Your task to perform on an android device: Clear the cart on bestbuy.com. Add usb-b to the cart on bestbuy.com Image 0: 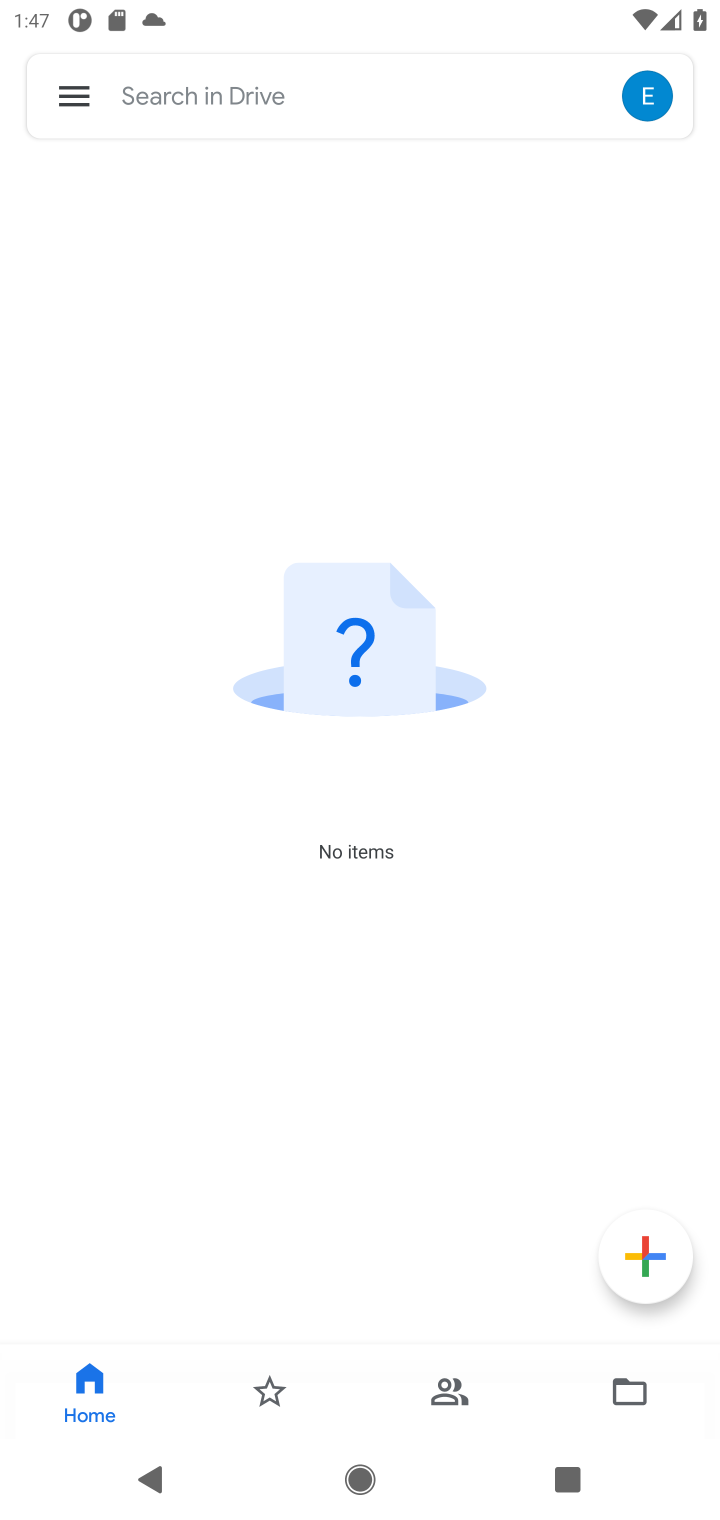
Step 0: press home button
Your task to perform on an android device: Clear the cart on bestbuy.com. Add usb-b to the cart on bestbuy.com Image 1: 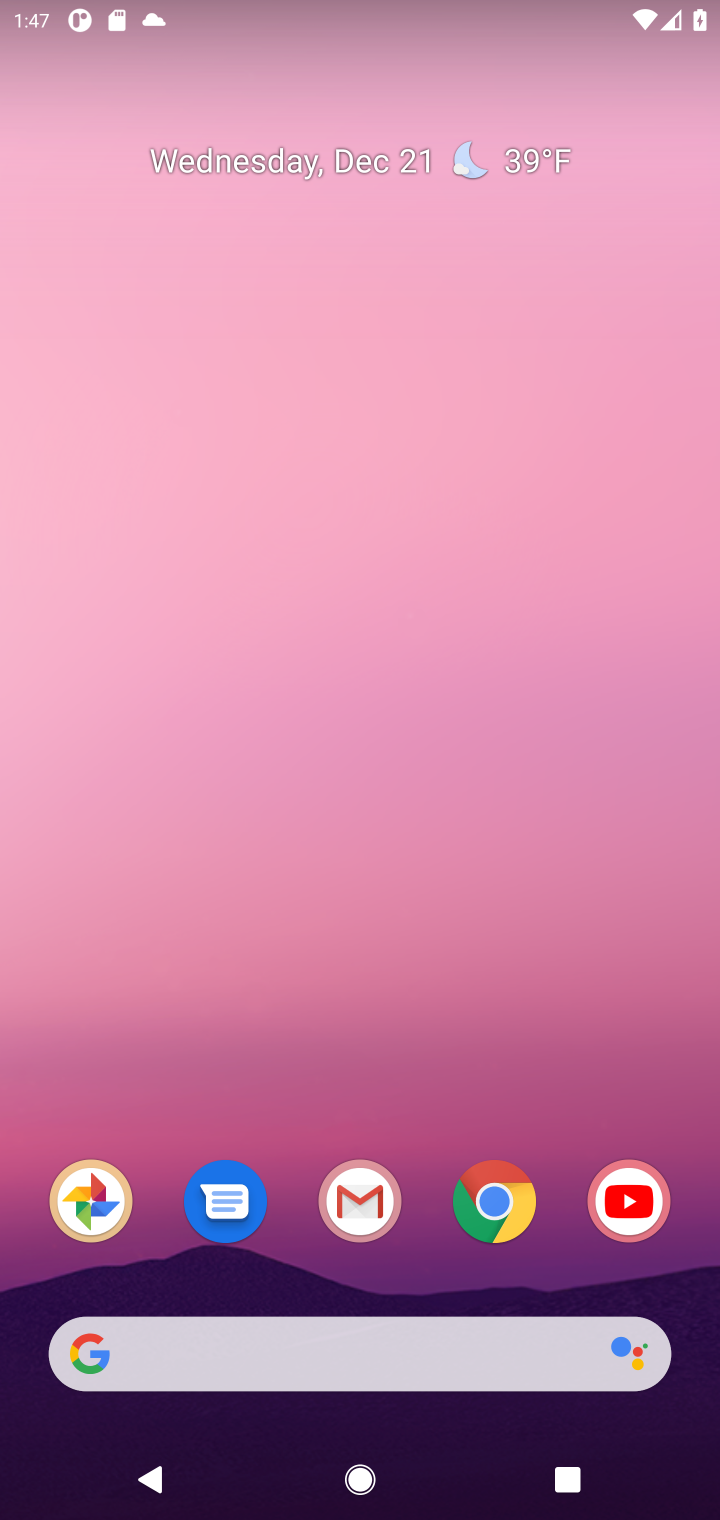
Step 1: click (479, 1211)
Your task to perform on an android device: Clear the cart on bestbuy.com. Add usb-b to the cart on bestbuy.com Image 2: 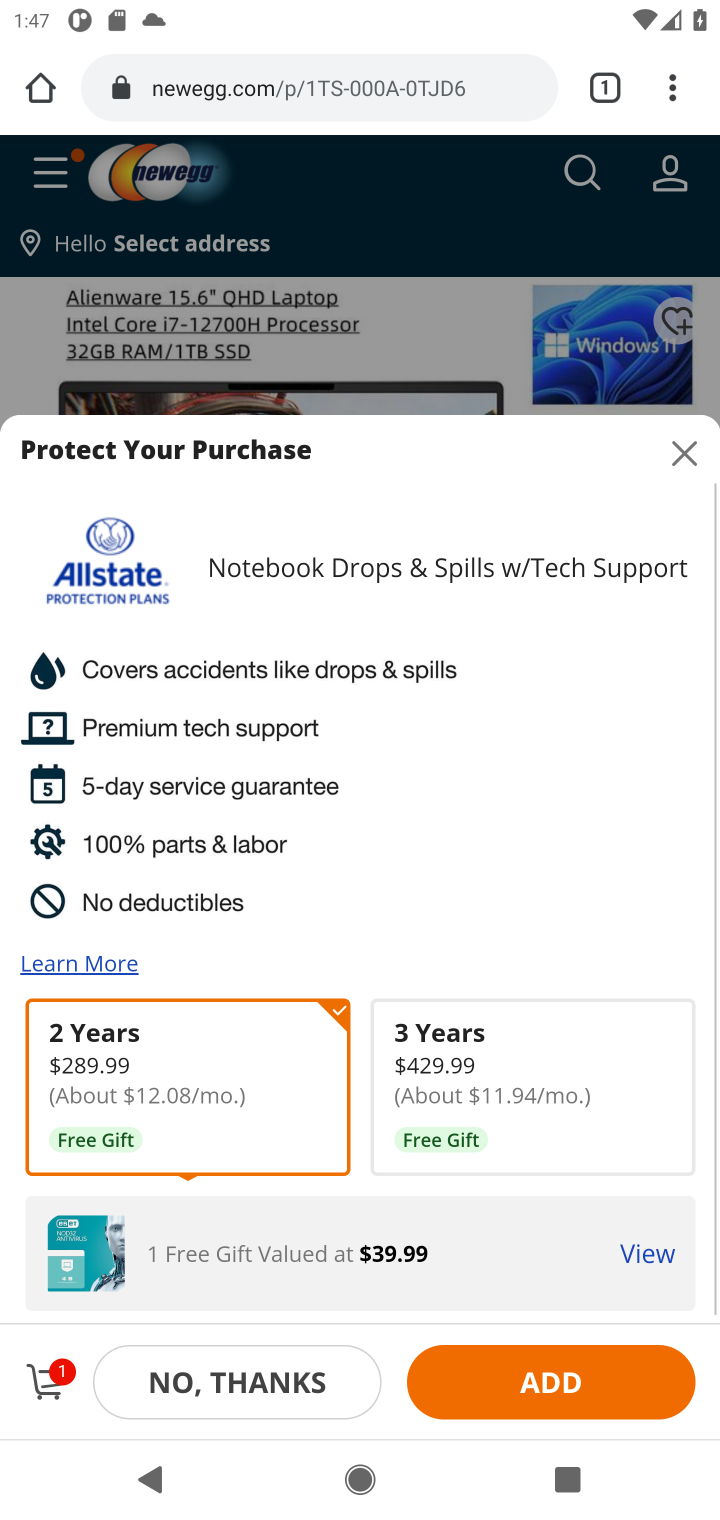
Step 2: click (288, 99)
Your task to perform on an android device: Clear the cart on bestbuy.com. Add usb-b to the cart on bestbuy.com Image 3: 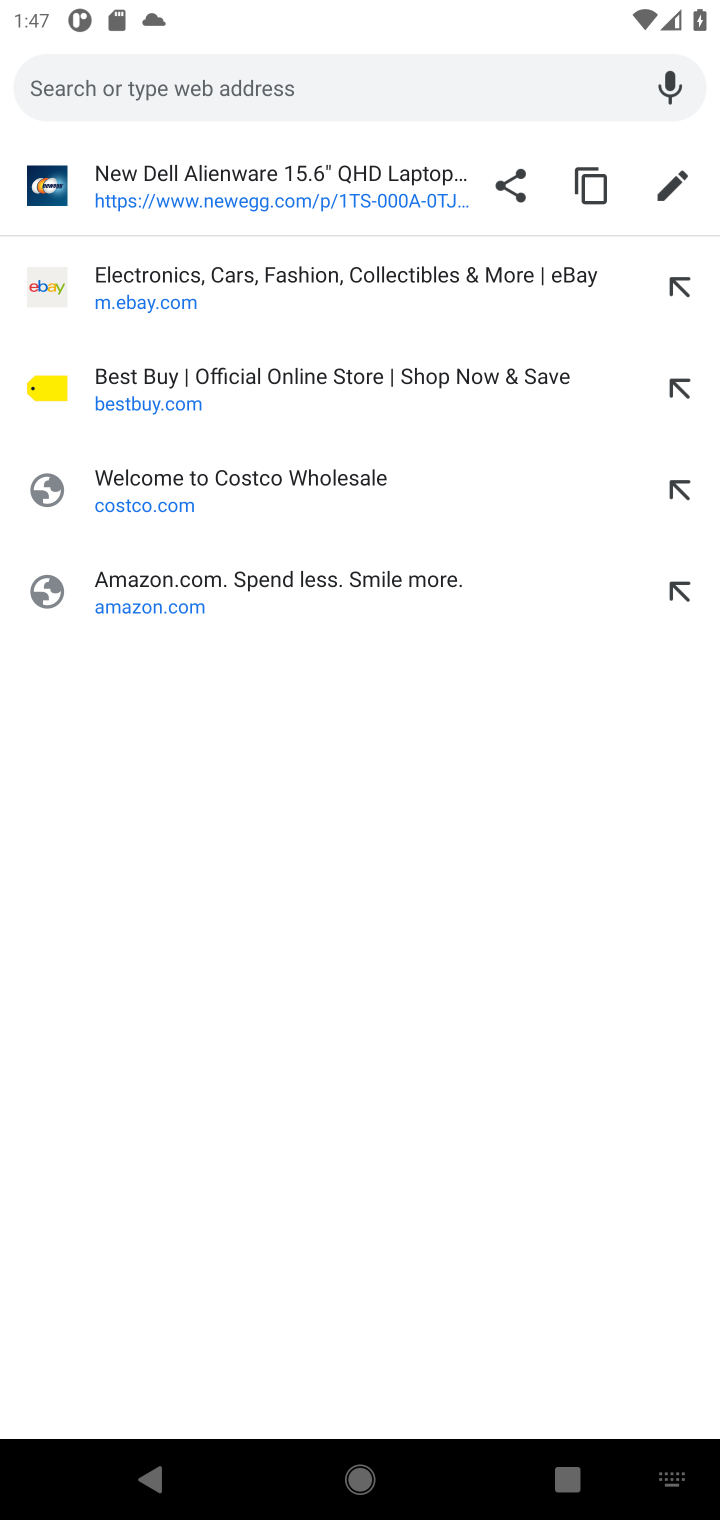
Step 3: click (145, 387)
Your task to perform on an android device: Clear the cart on bestbuy.com. Add usb-b to the cart on bestbuy.com Image 4: 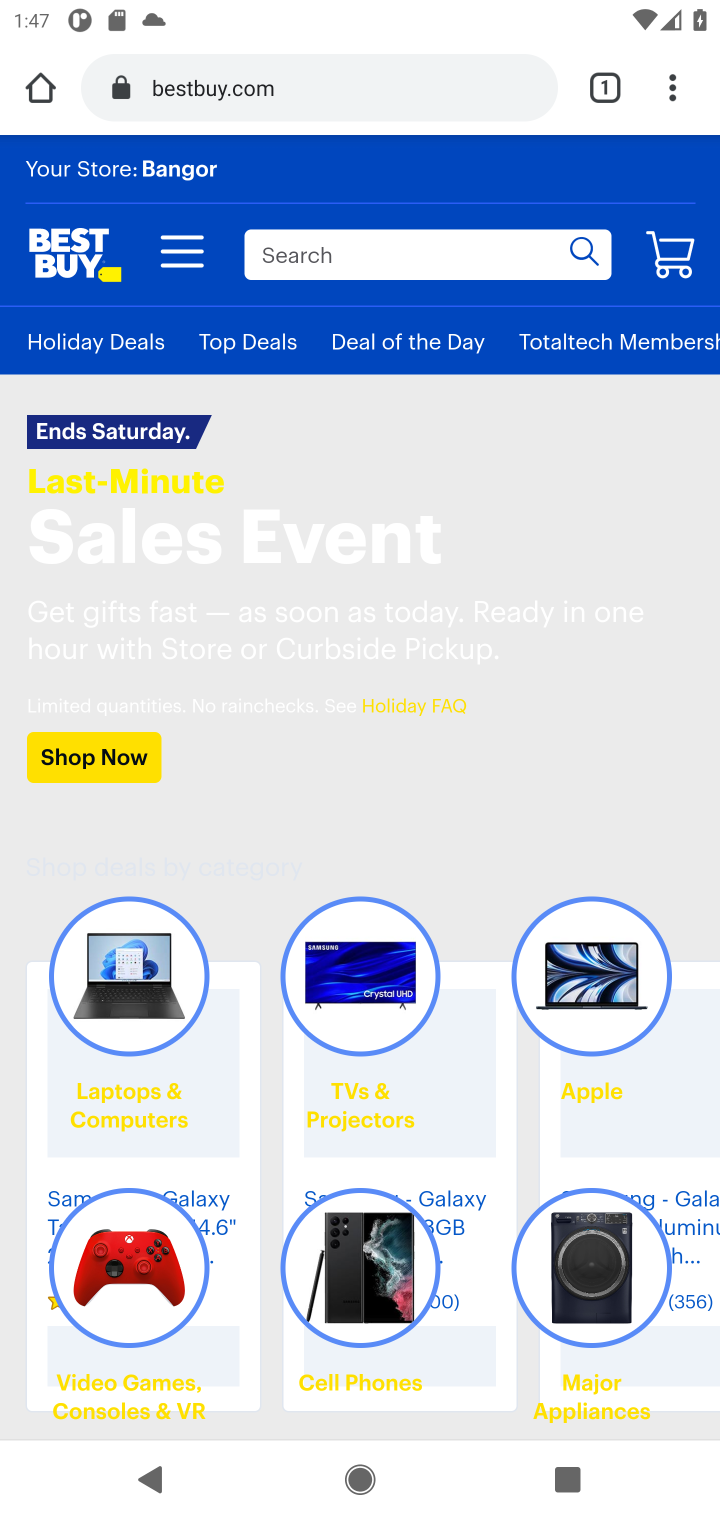
Step 4: click (664, 256)
Your task to perform on an android device: Clear the cart on bestbuy.com. Add usb-b to the cart on bestbuy.com Image 5: 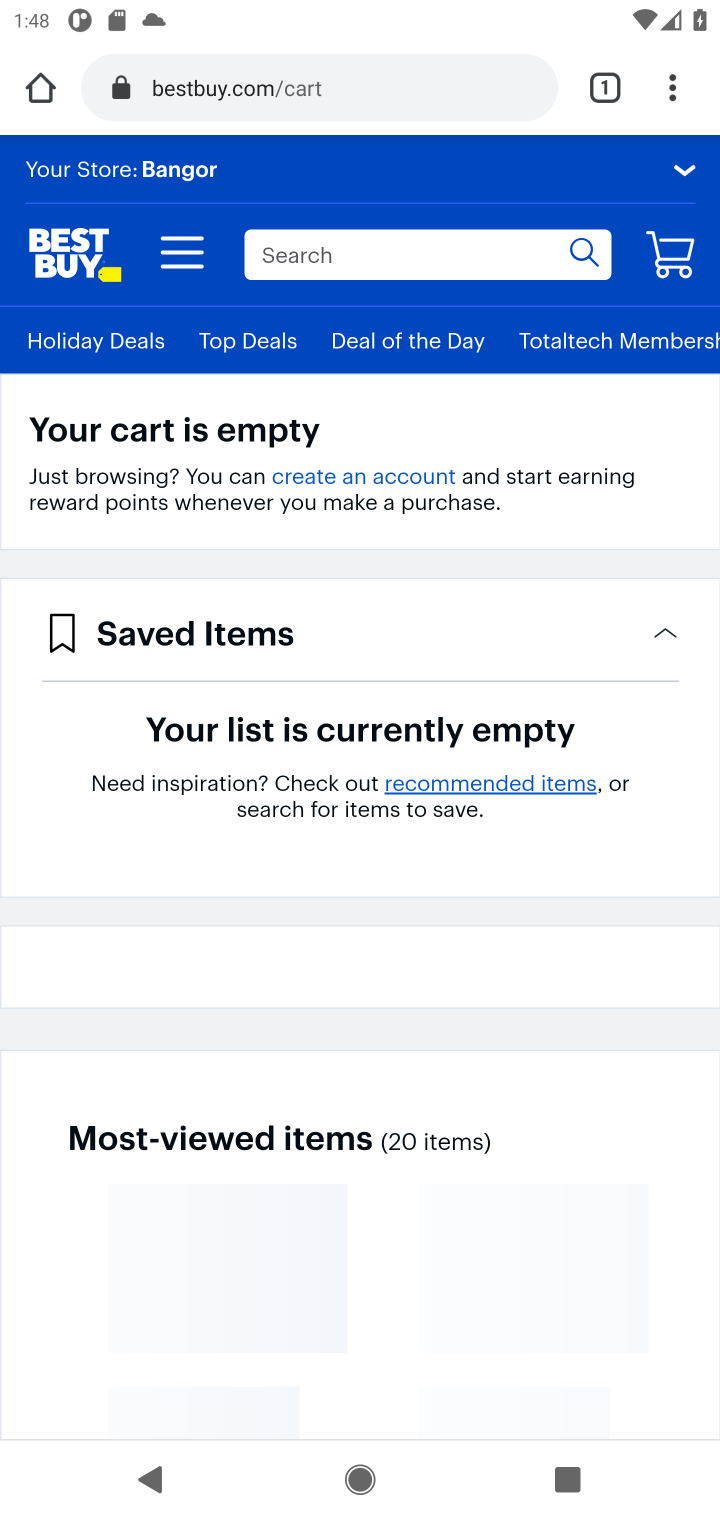
Step 5: click (420, 270)
Your task to perform on an android device: Clear the cart on bestbuy.com. Add usb-b to the cart on bestbuy.com Image 6: 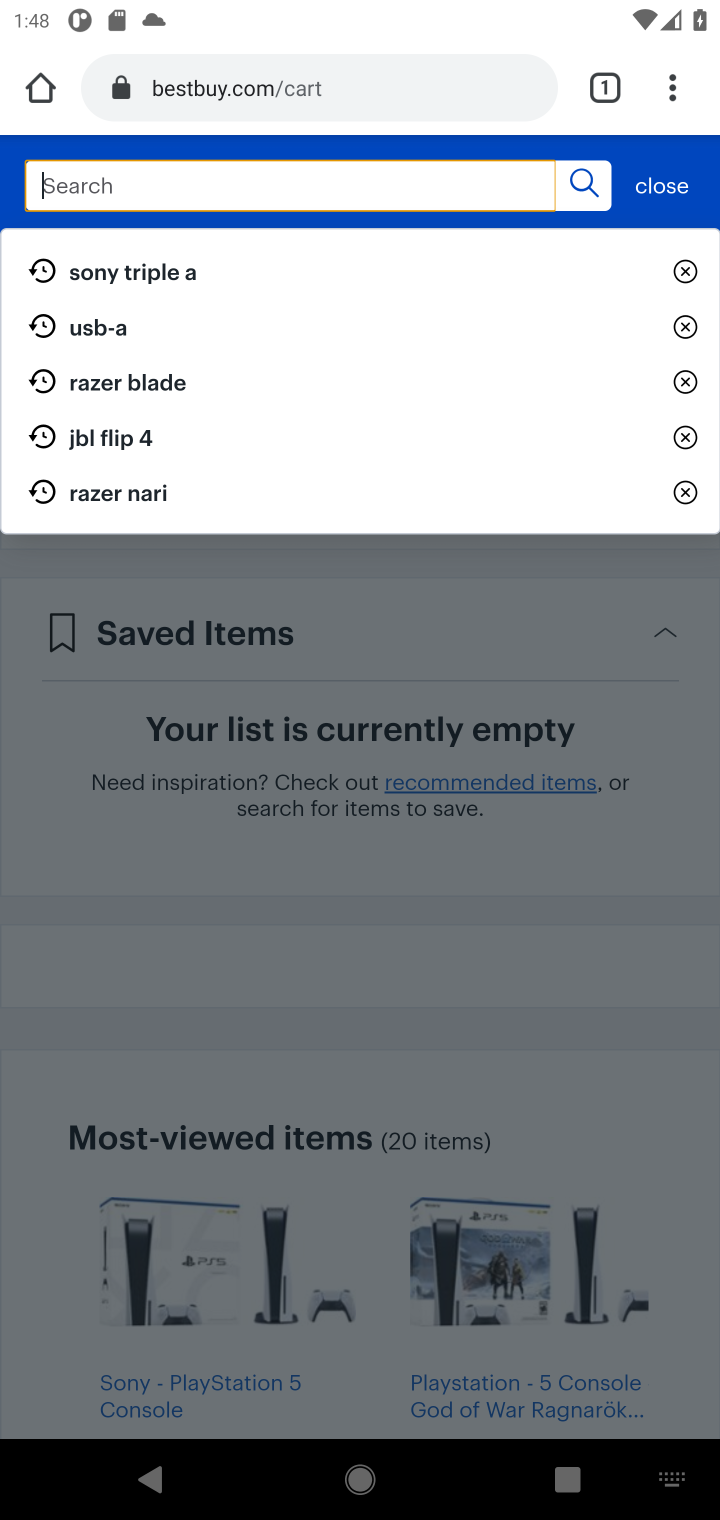
Step 6: type "usb-b"
Your task to perform on an android device: Clear the cart on bestbuy.com. Add usb-b to the cart on bestbuy.com Image 7: 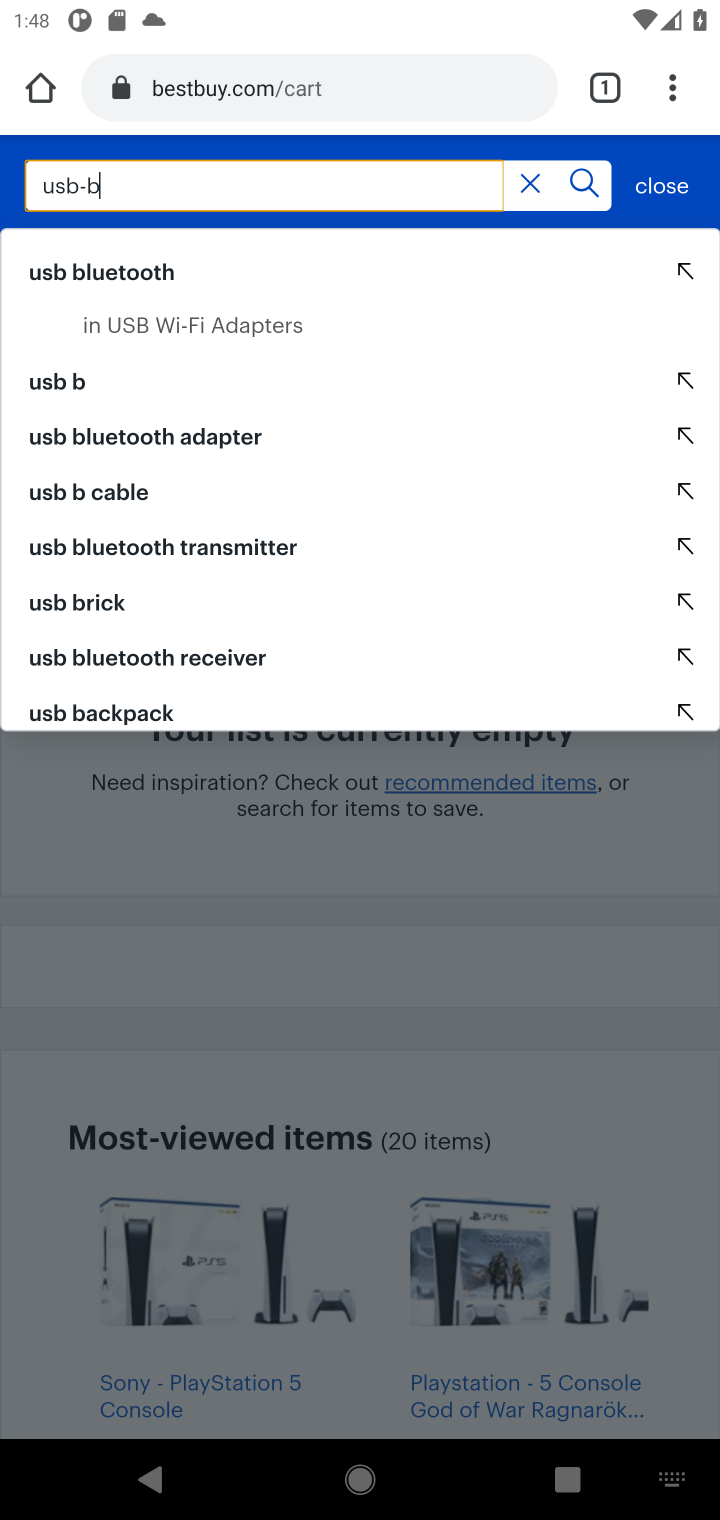
Step 7: click (53, 385)
Your task to perform on an android device: Clear the cart on bestbuy.com. Add usb-b to the cart on bestbuy.com Image 8: 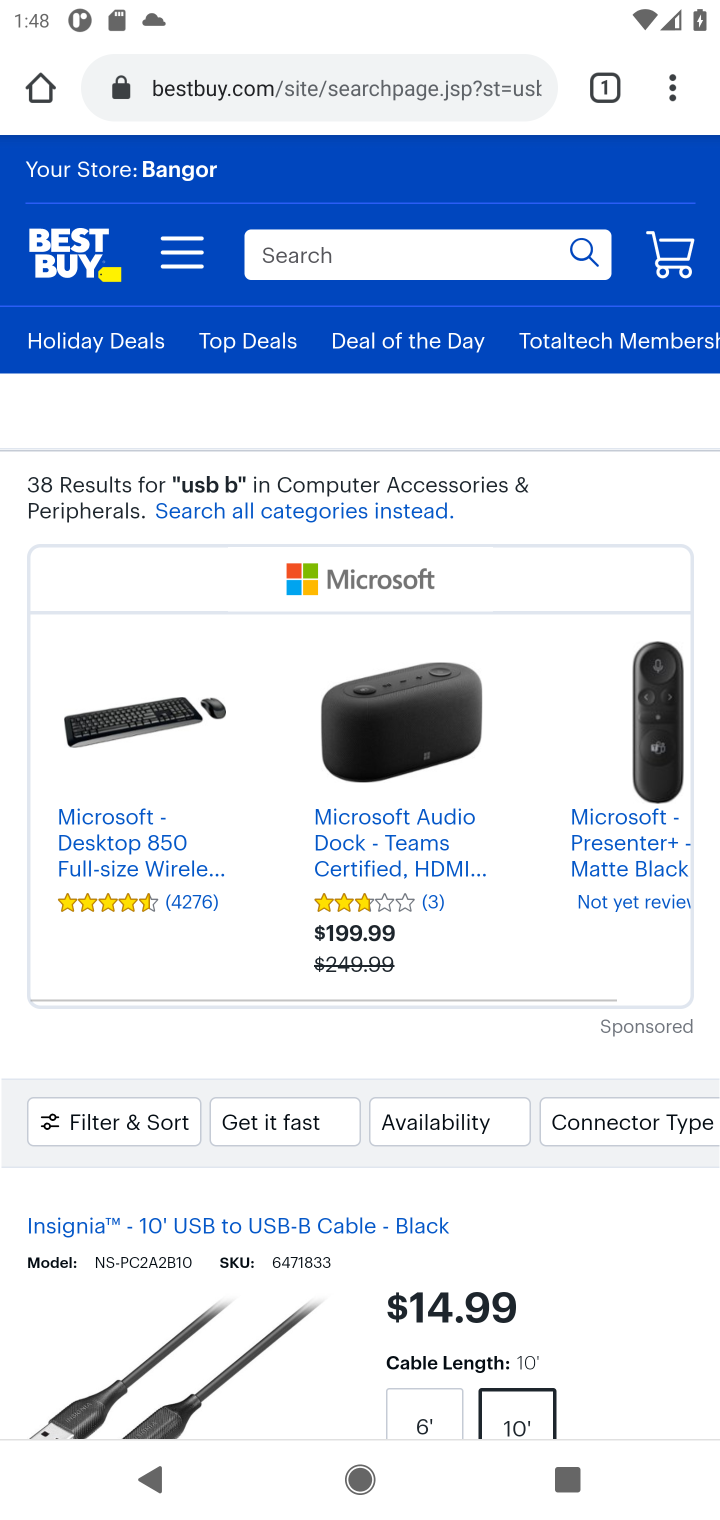
Step 8: drag from (303, 1187) to (300, 609)
Your task to perform on an android device: Clear the cart on bestbuy.com. Add usb-b to the cart on bestbuy.com Image 9: 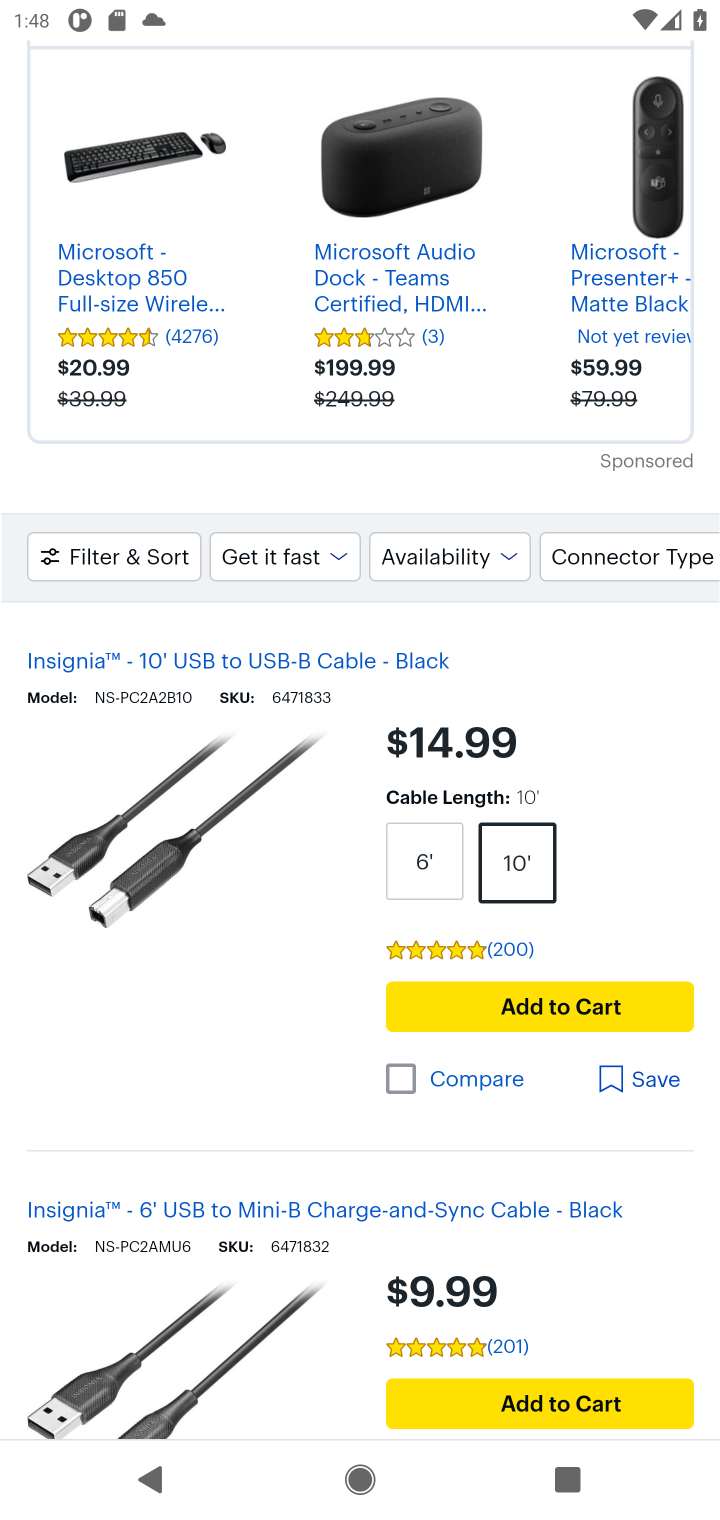
Step 9: click (606, 1007)
Your task to perform on an android device: Clear the cart on bestbuy.com. Add usb-b to the cart on bestbuy.com Image 10: 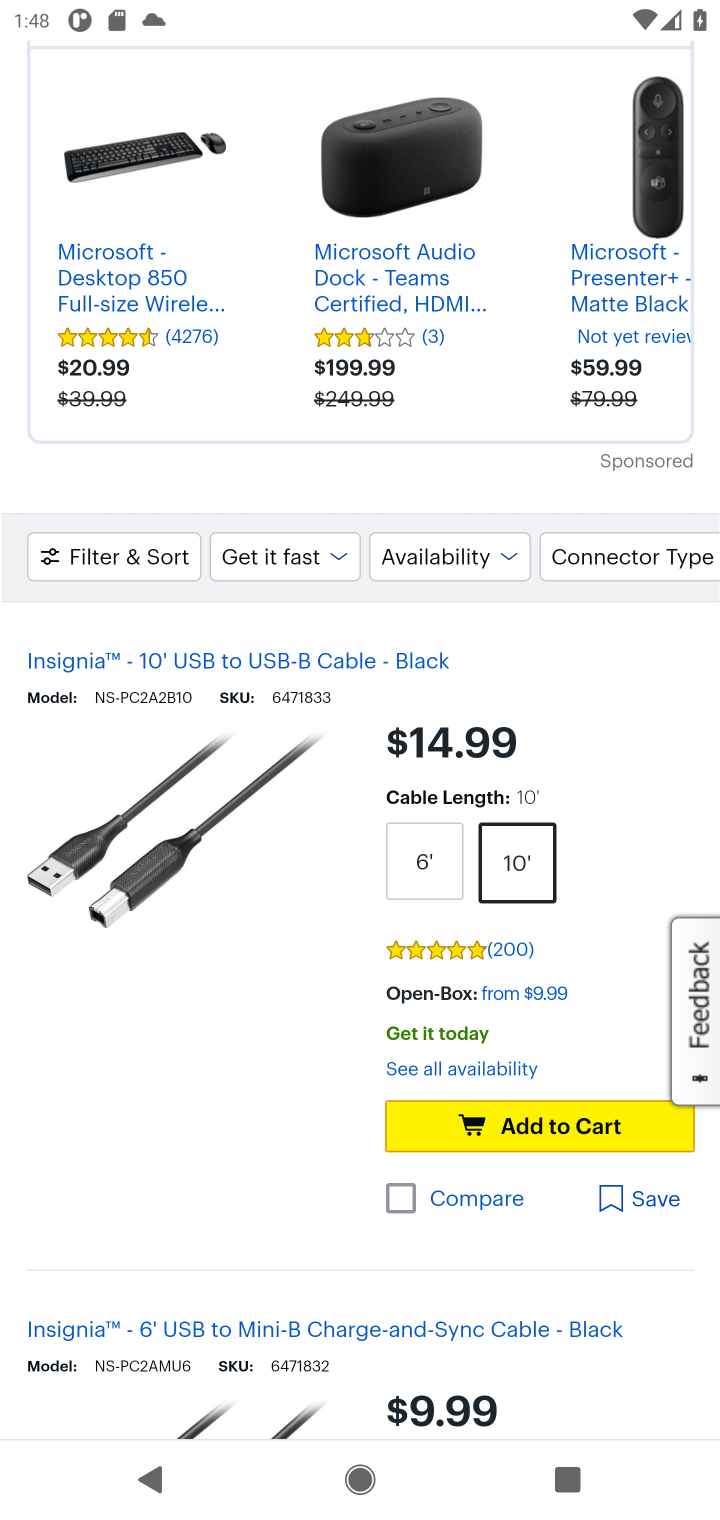
Step 10: click (513, 1139)
Your task to perform on an android device: Clear the cart on bestbuy.com. Add usb-b to the cart on bestbuy.com Image 11: 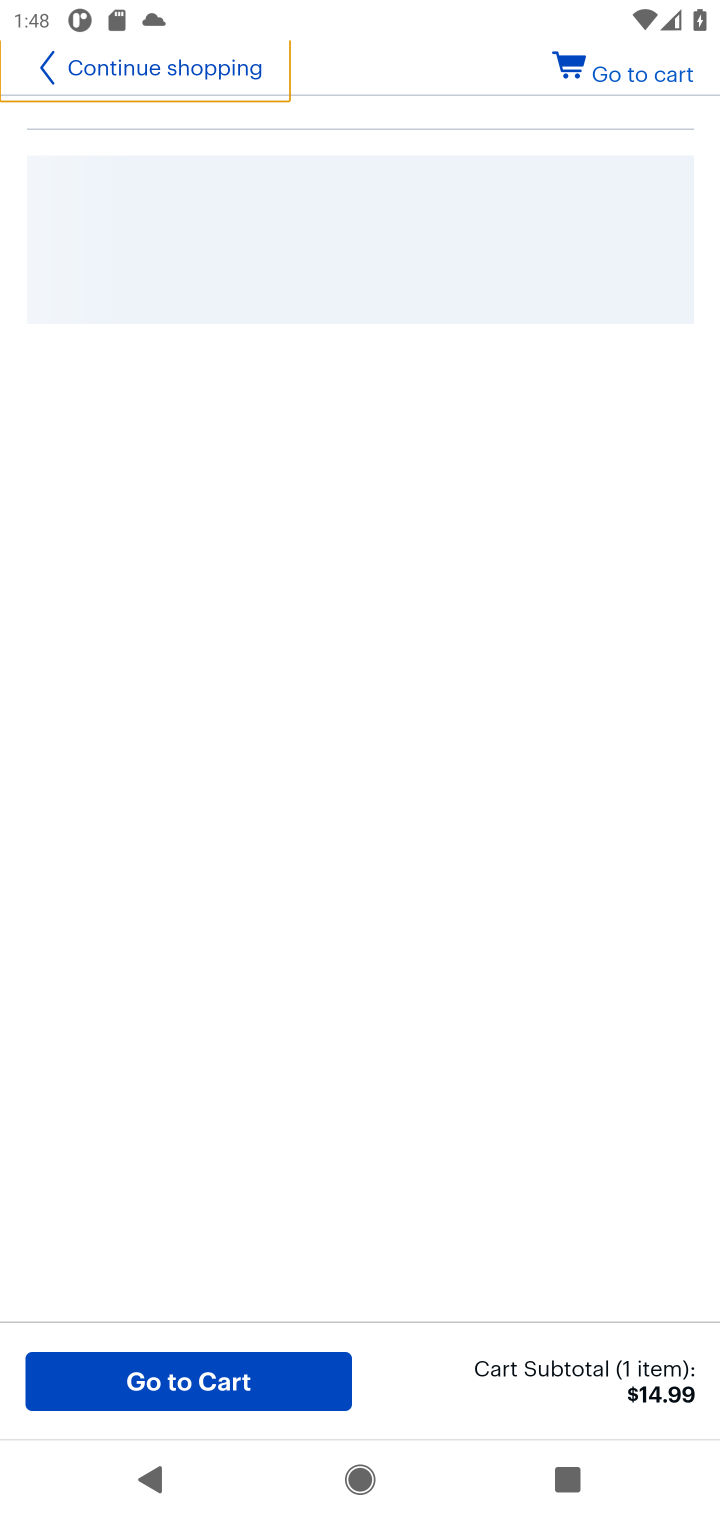
Step 11: task complete